Your task to perform on an android device: Go to network settings Image 0: 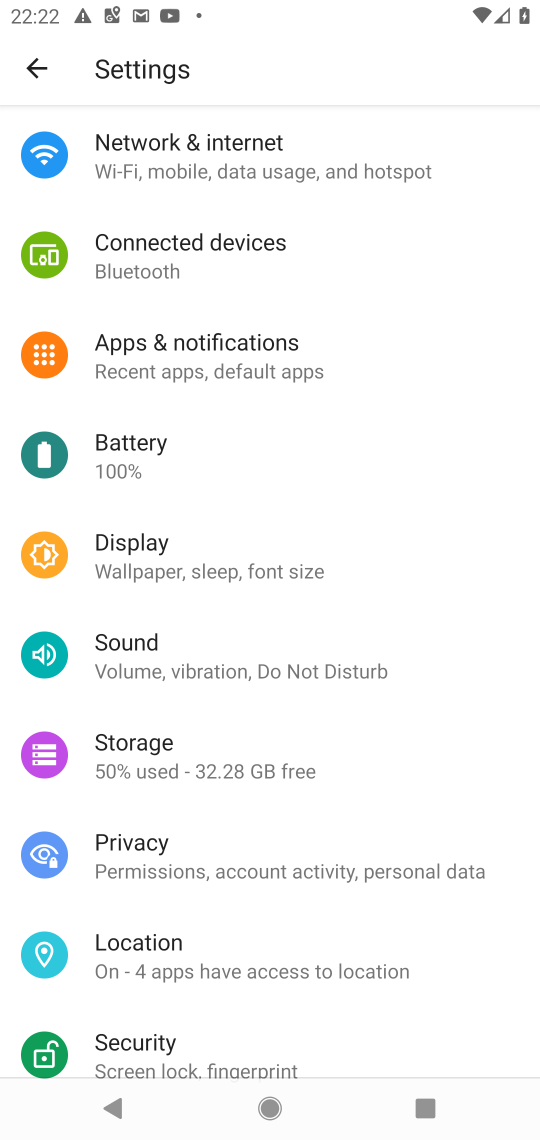
Step 0: click (245, 146)
Your task to perform on an android device: Go to network settings Image 1: 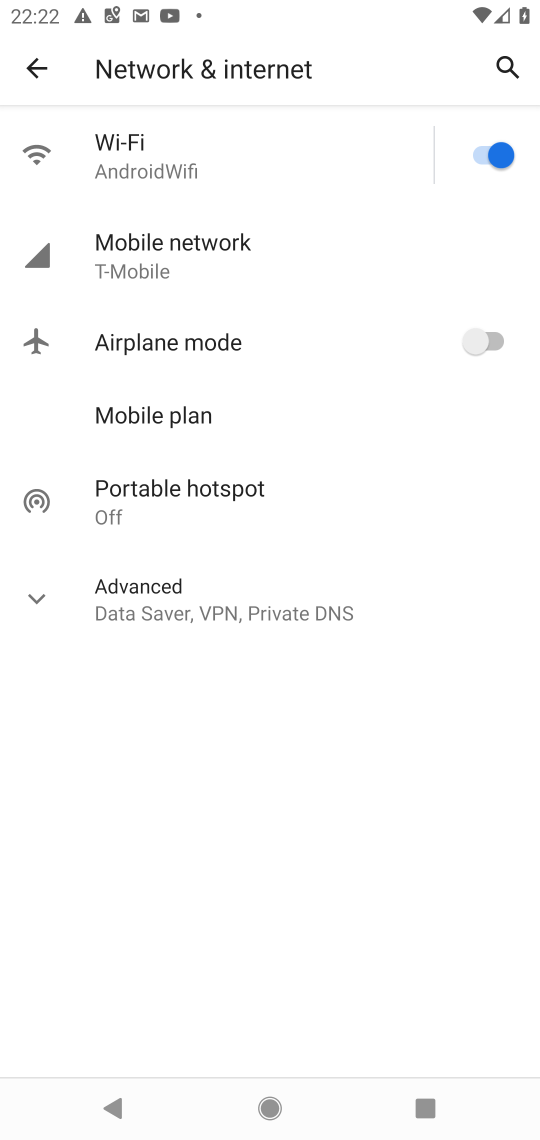
Step 1: click (189, 253)
Your task to perform on an android device: Go to network settings Image 2: 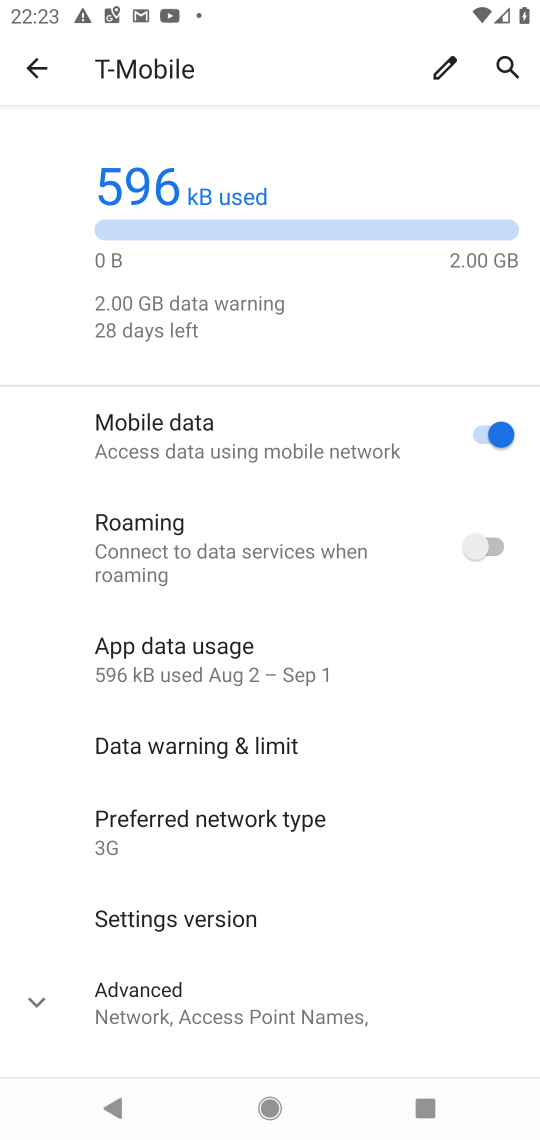
Step 2: task complete